Your task to perform on an android device: Open Maps and search for coffee Image 0: 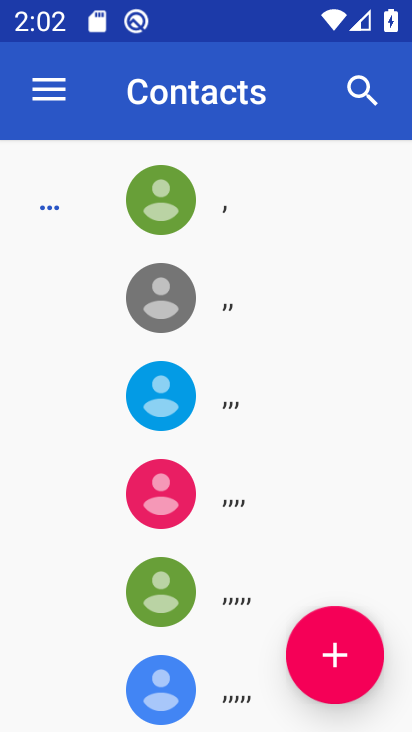
Step 0: press home button
Your task to perform on an android device: Open Maps and search for coffee Image 1: 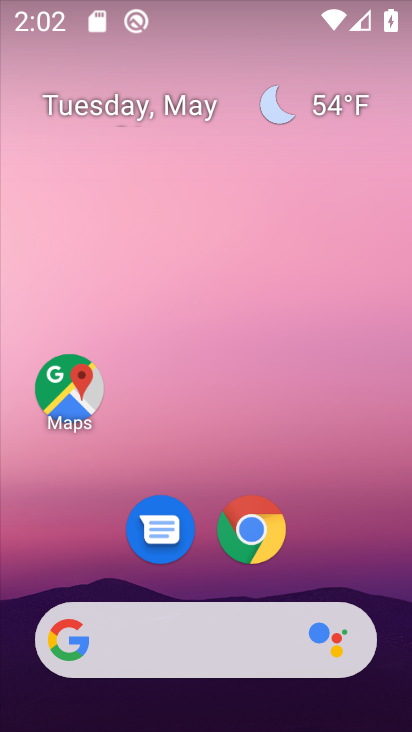
Step 1: click (79, 378)
Your task to perform on an android device: Open Maps and search for coffee Image 2: 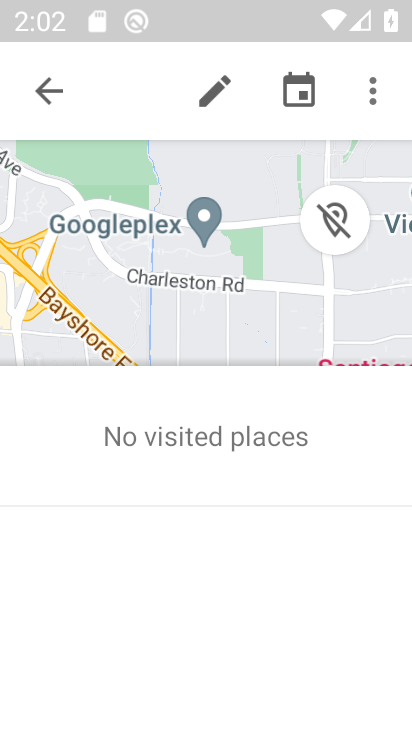
Step 2: click (54, 90)
Your task to perform on an android device: Open Maps and search for coffee Image 3: 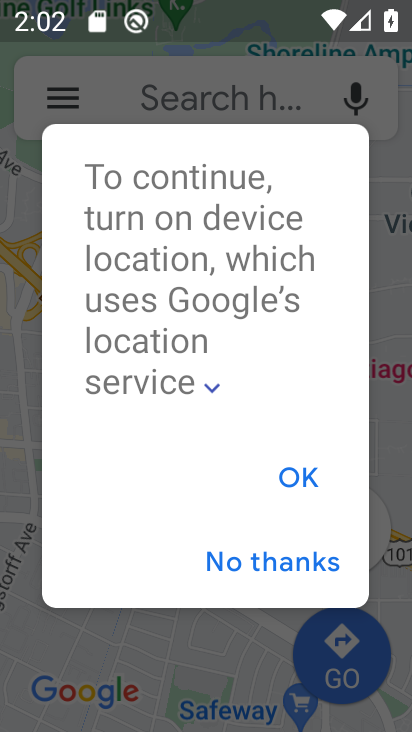
Step 3: click (300, 551)
Your task to perform on an android device: Open Maps and search for coffee Image 4: 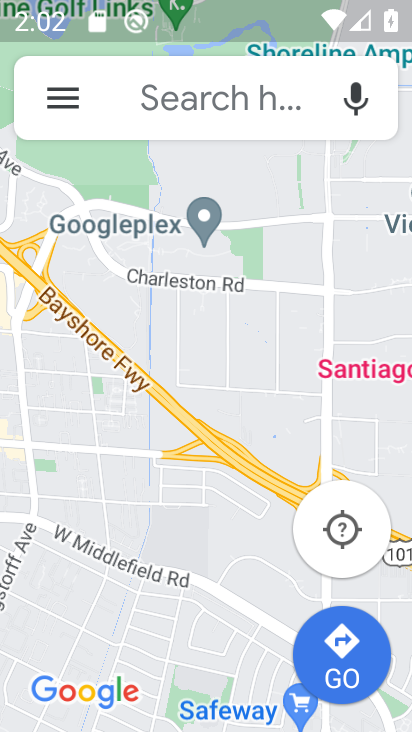
Step 4: click (204, 96)
Your task to perform on an android device: Open Maps and search for coffee Image 5: 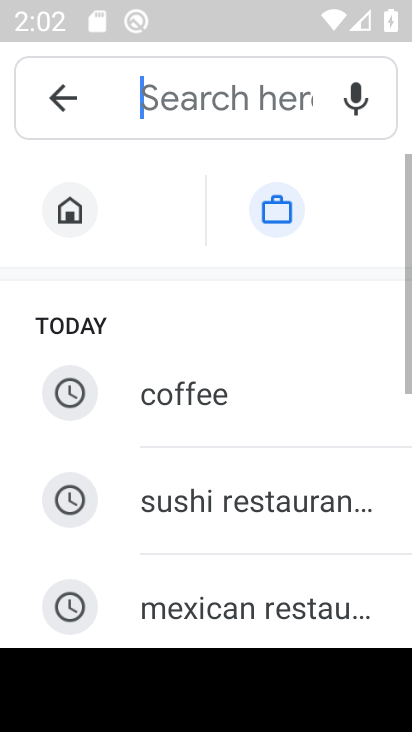
Step 5: click (187, 401)
Your task to perform on an android device: Open Maps and search for coffee Image 6: 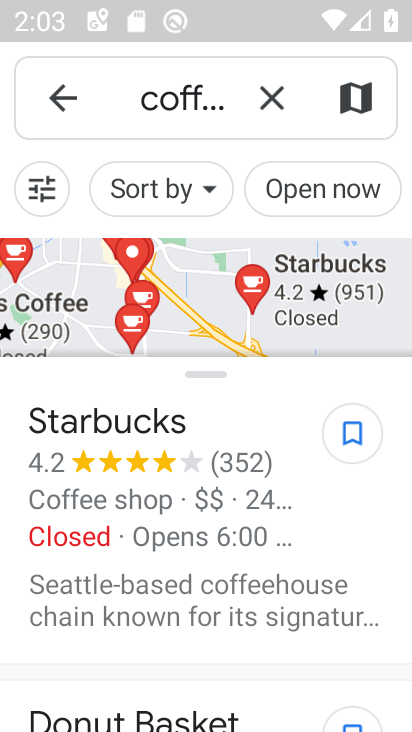
Step 6: task complete